Your task to perform on an android device: set the timer Image 0: 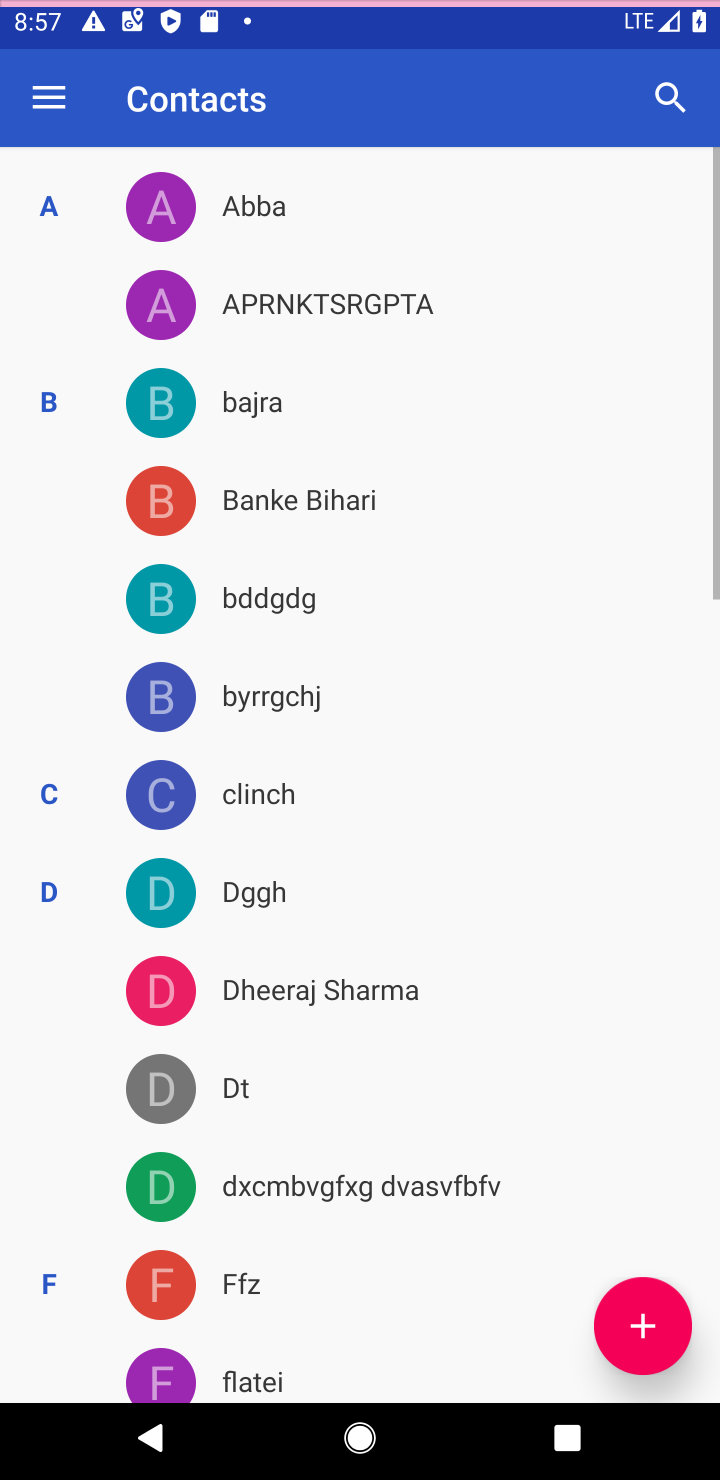
Step 0: press back button
Your task to perform on an android device: set the timer Image 1: 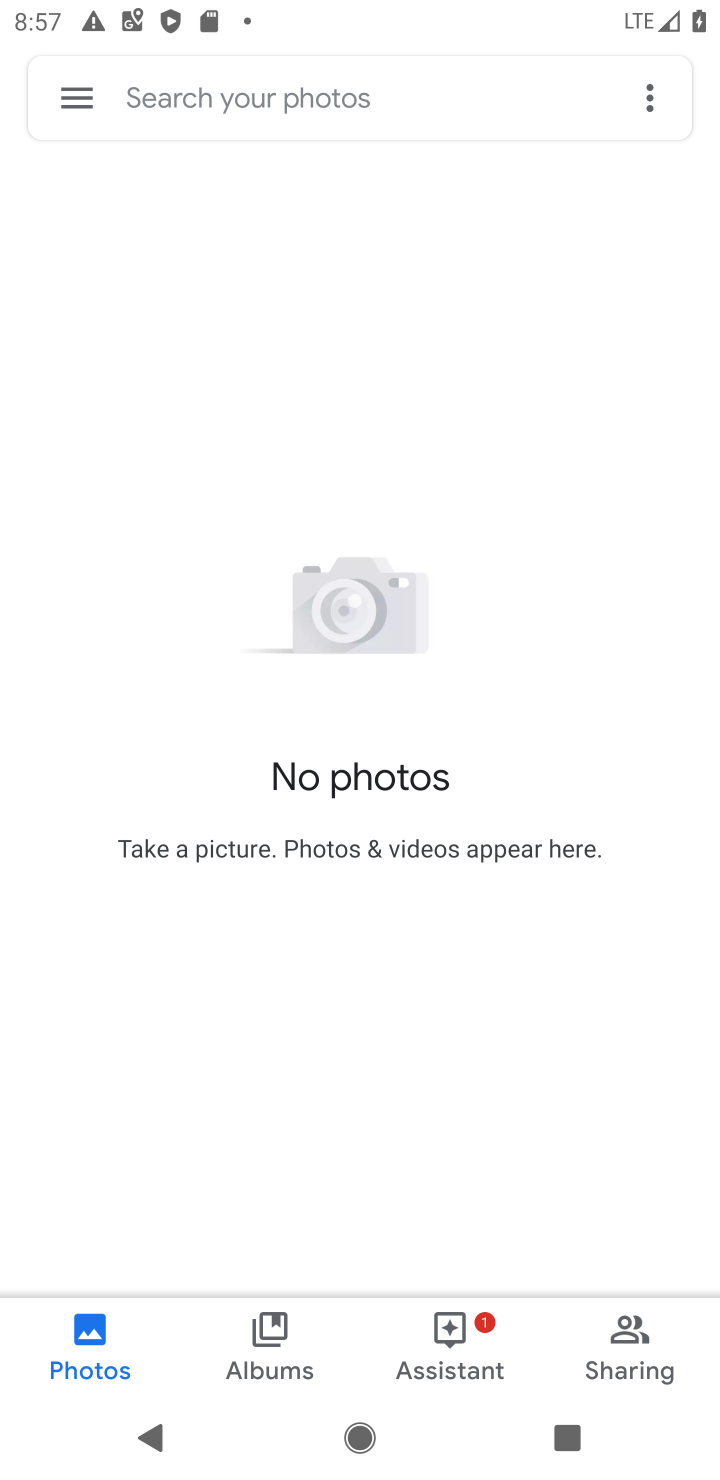
Step 1: press back button
Your task to perform on an android device: set the timer Image 2: 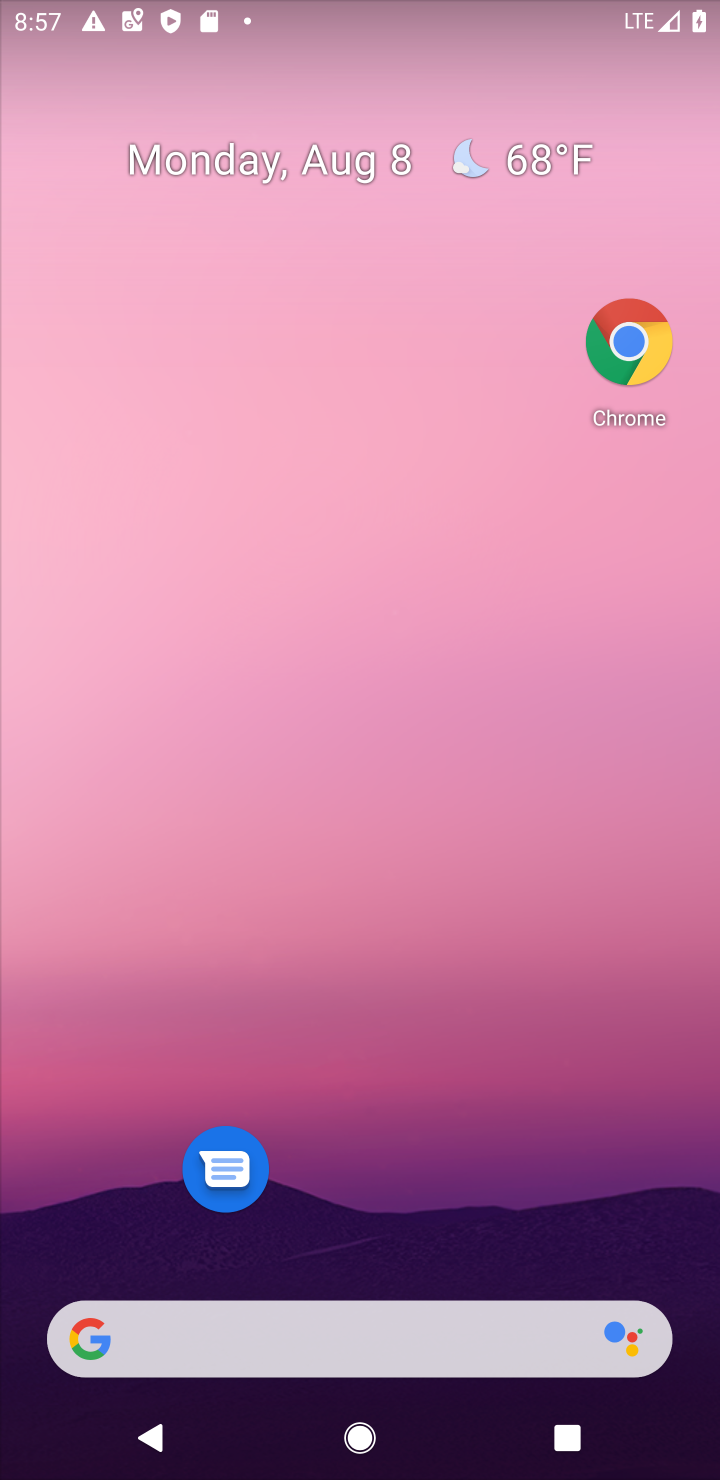
Step 2: drag from (350, 1162) to (508, 185)
Your task to perform on an android device: set the timer Image 3: 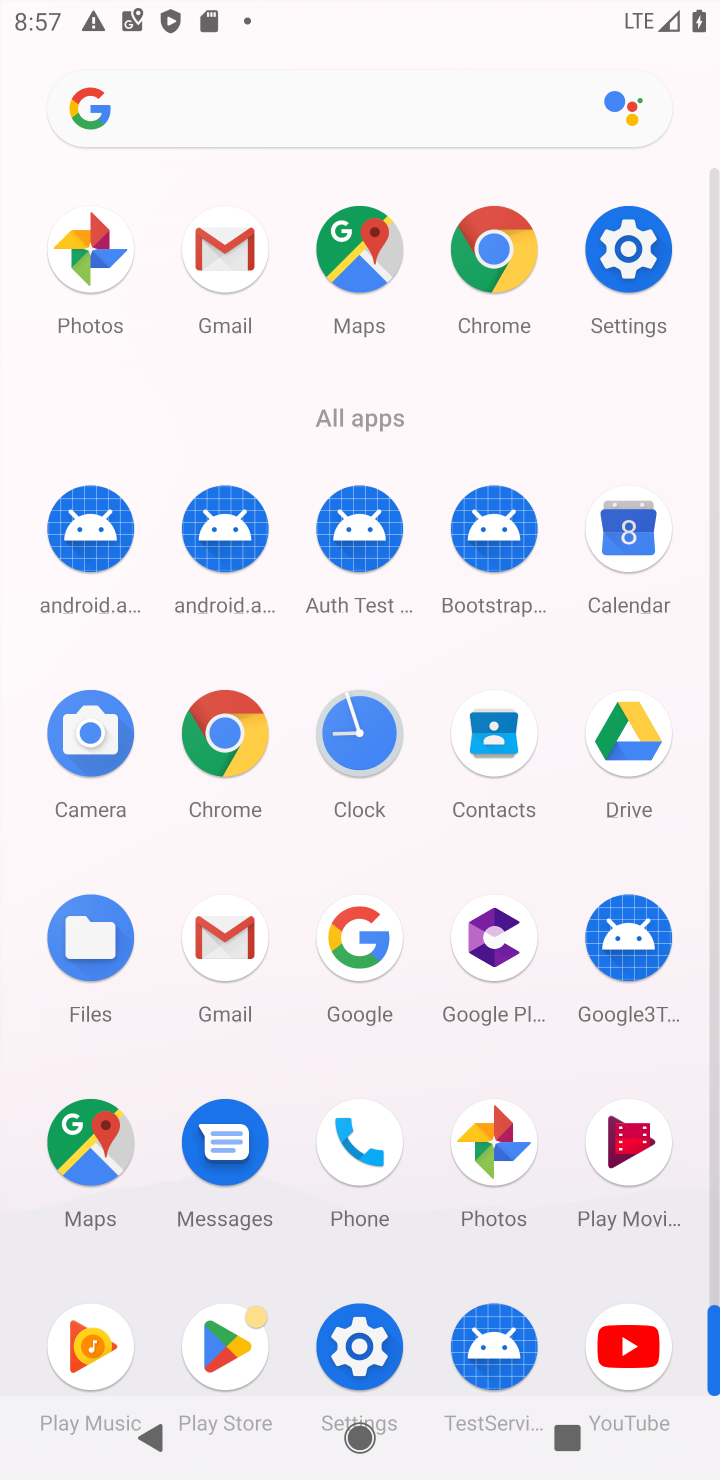
Step 3: click (353, 747)
Your task to perform on an android device: set the timer Image 4: 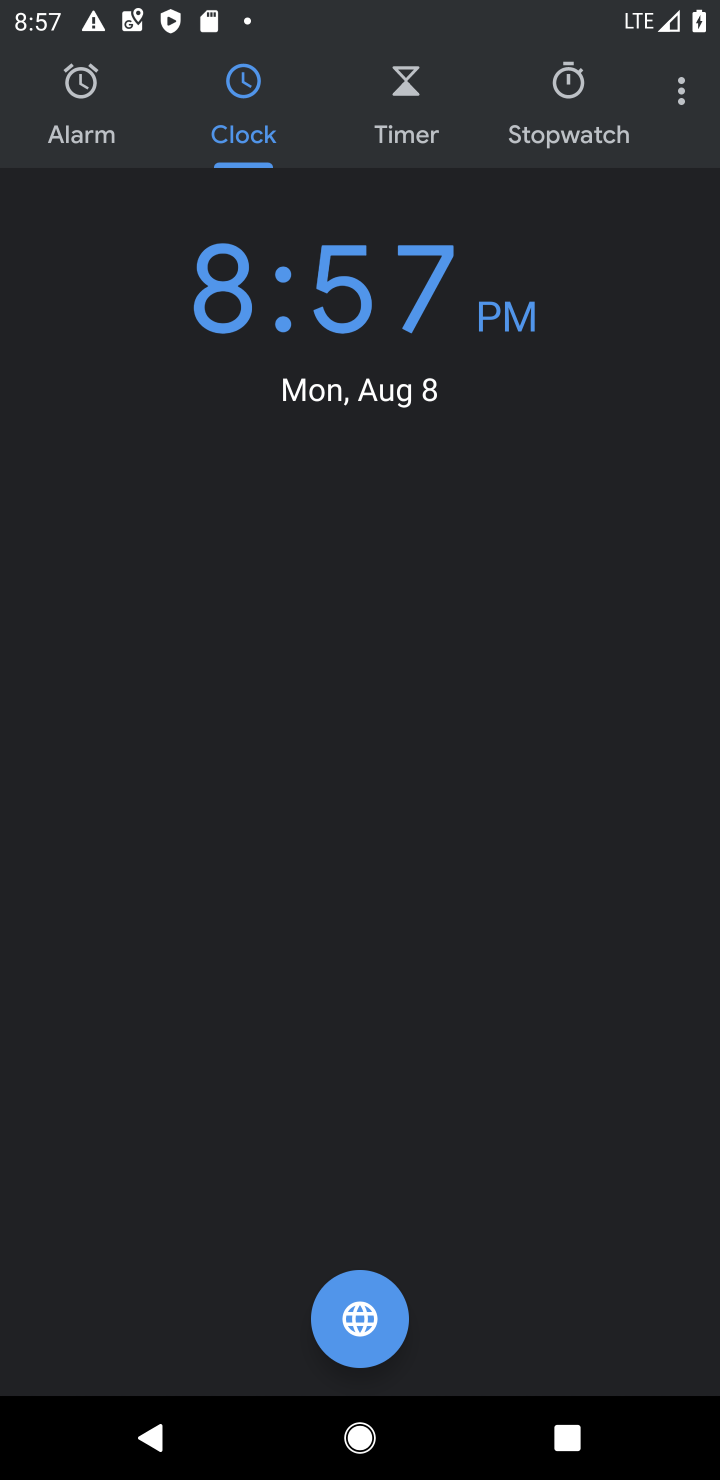
Step 4: click (399, 88)
Your task to perform on an android device: set the timer Image 5: 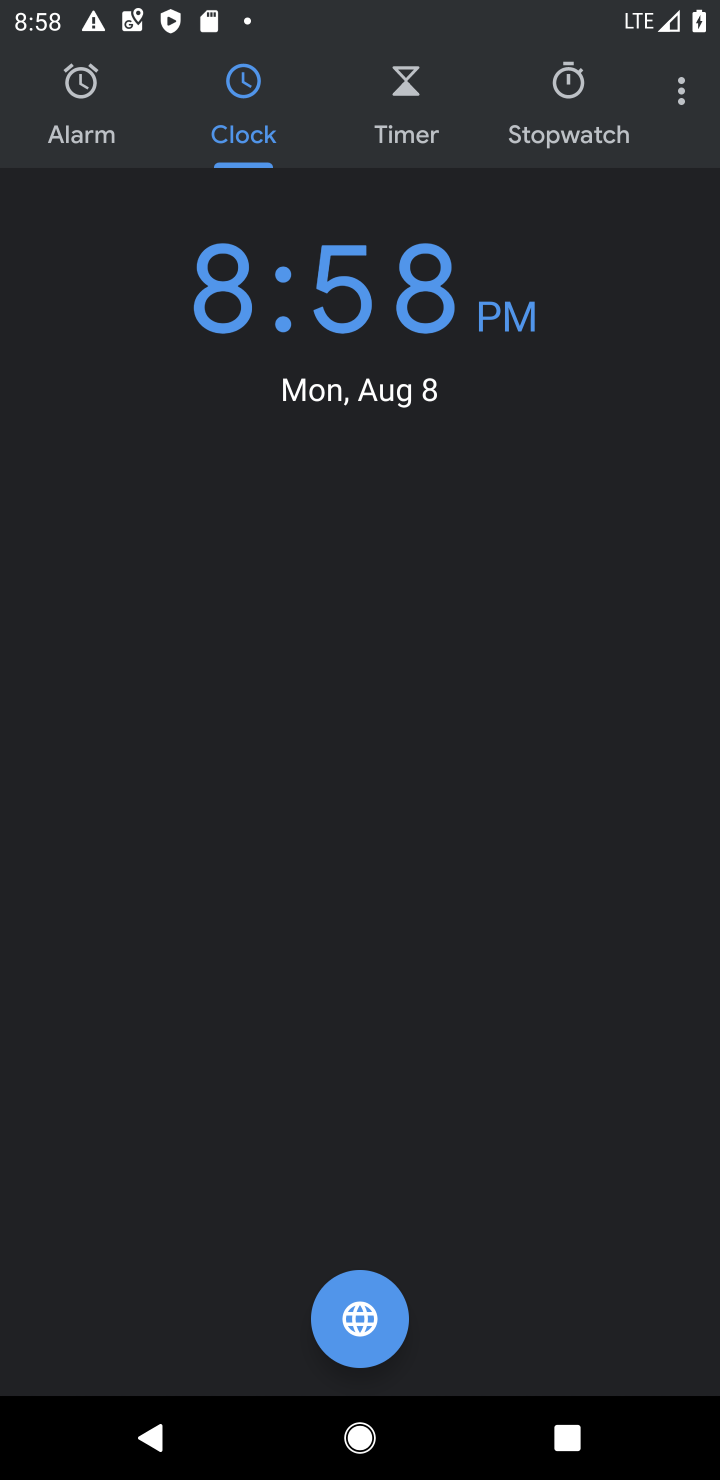
Step 5: click (402, 101)
Your task to perform on an android device: set the timer Image 6: 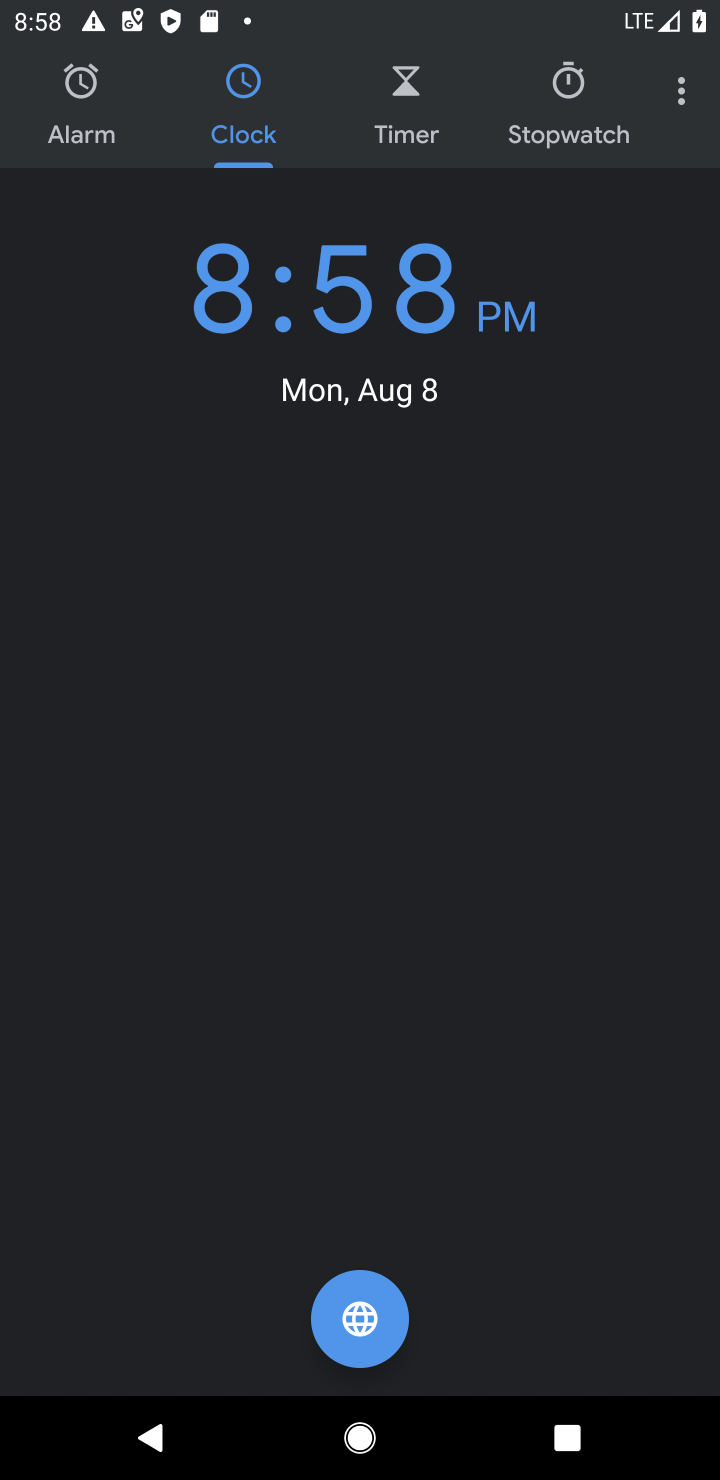
Step 6: click (399, 118)
Your task to perform on an android device: set the timer Image 7: 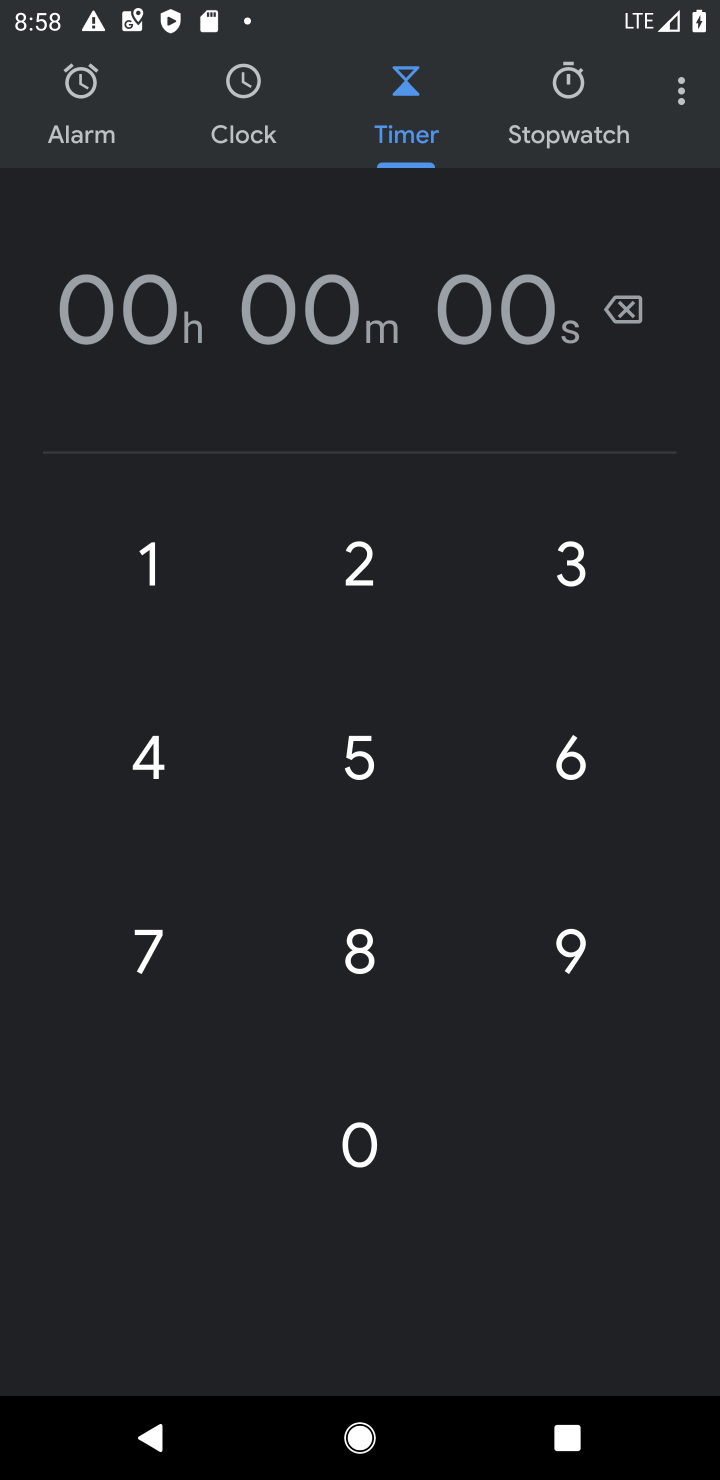
Step 7: click (353, 565)
Your task to perform on an android device: set the timer Image 8: 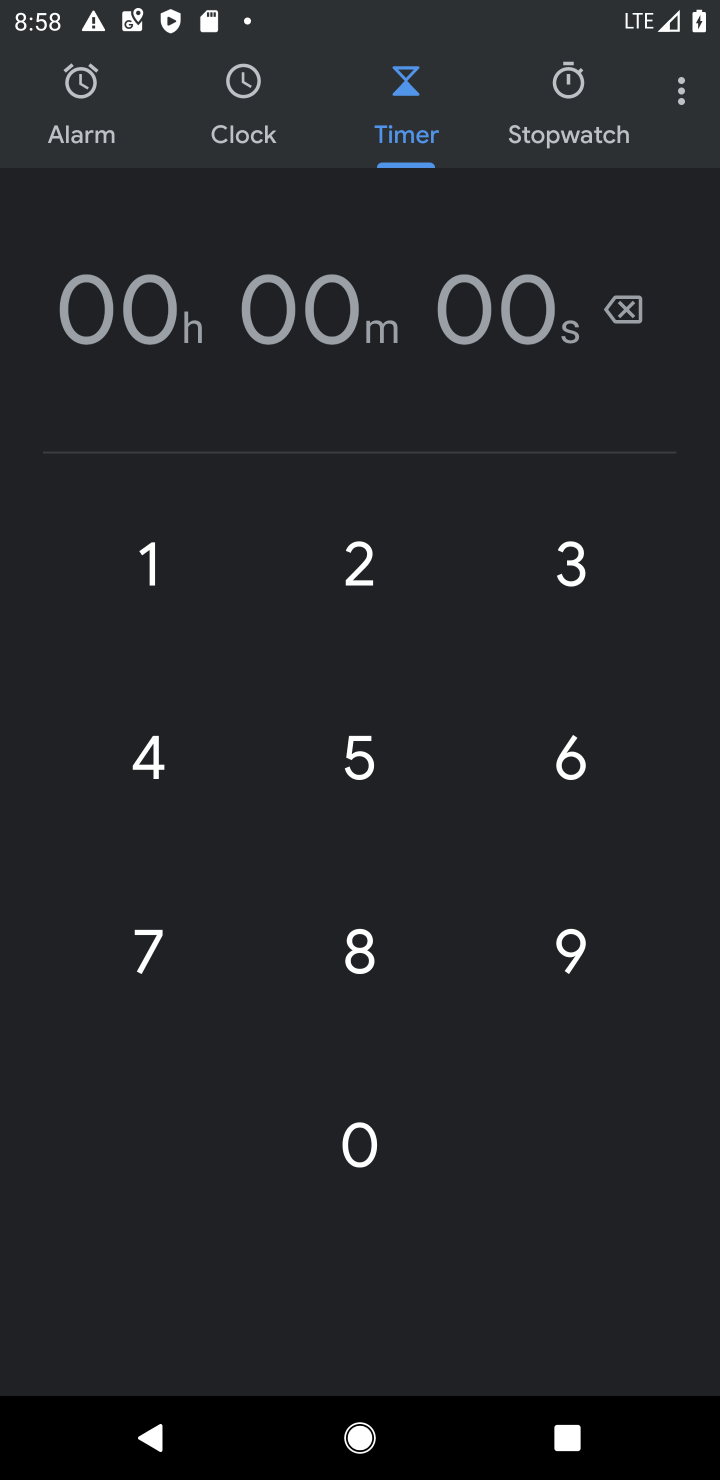
Step 8: click (588, 563)
Your task to perform on an android device: set the timer Image 9: 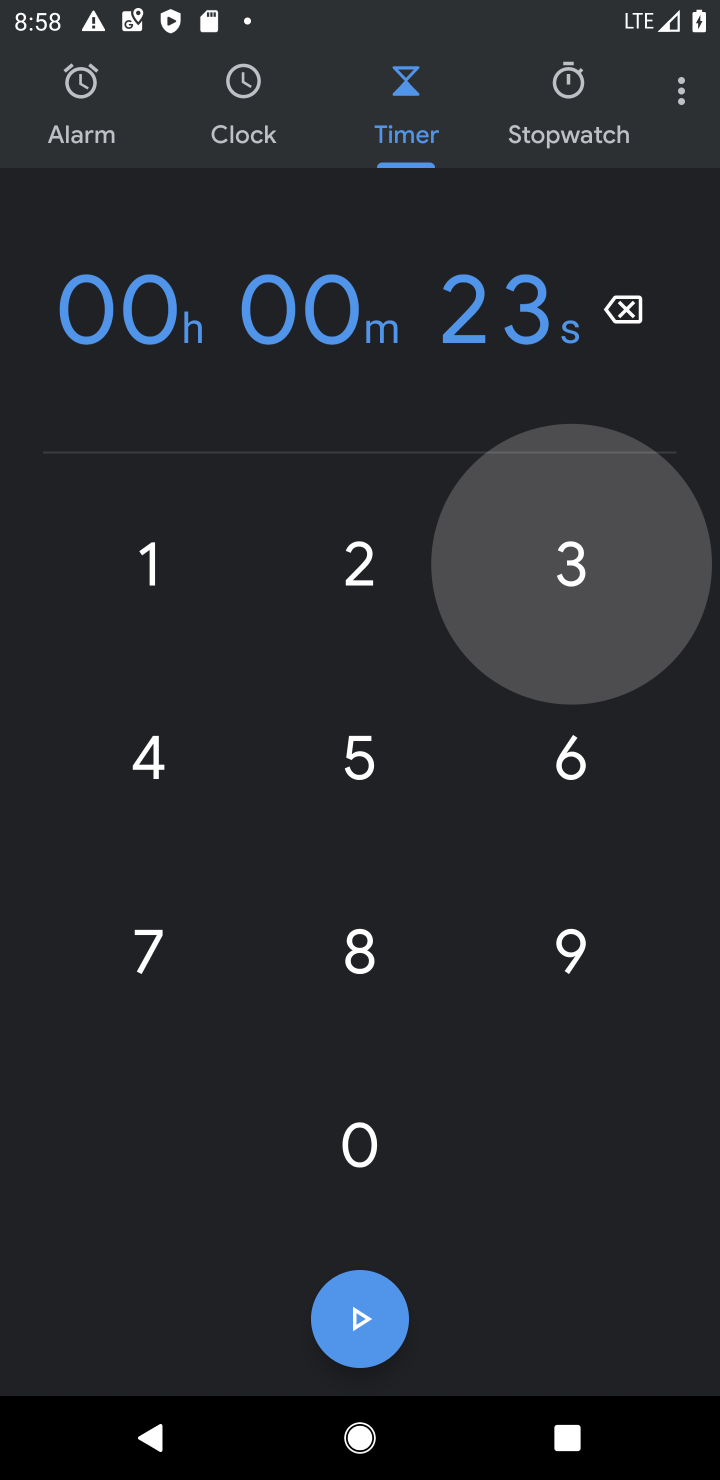
Step 9: click (360, 777)
Your task to perform on an android device: set the timer Image 10: 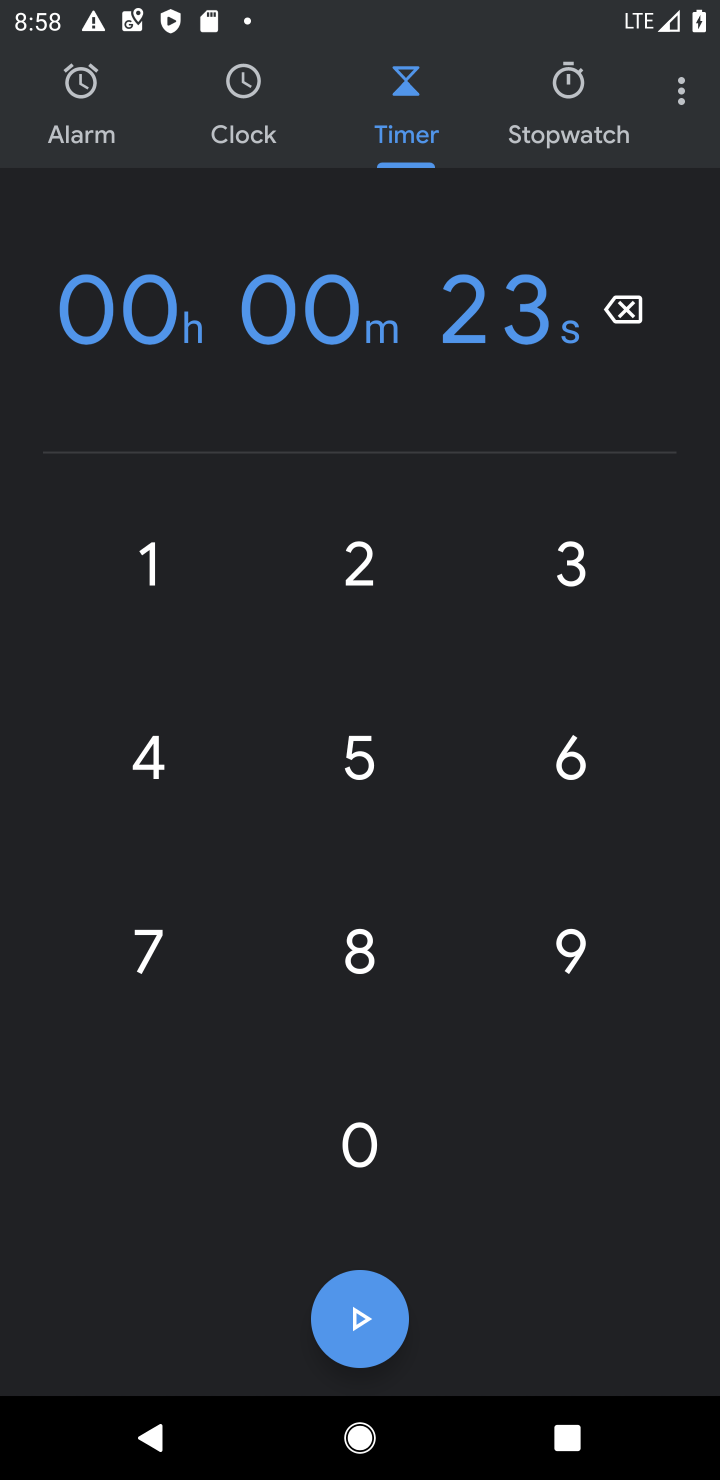
Step 10: click (570, 754)
Your task to perform on an android device: set the timer Image 11: 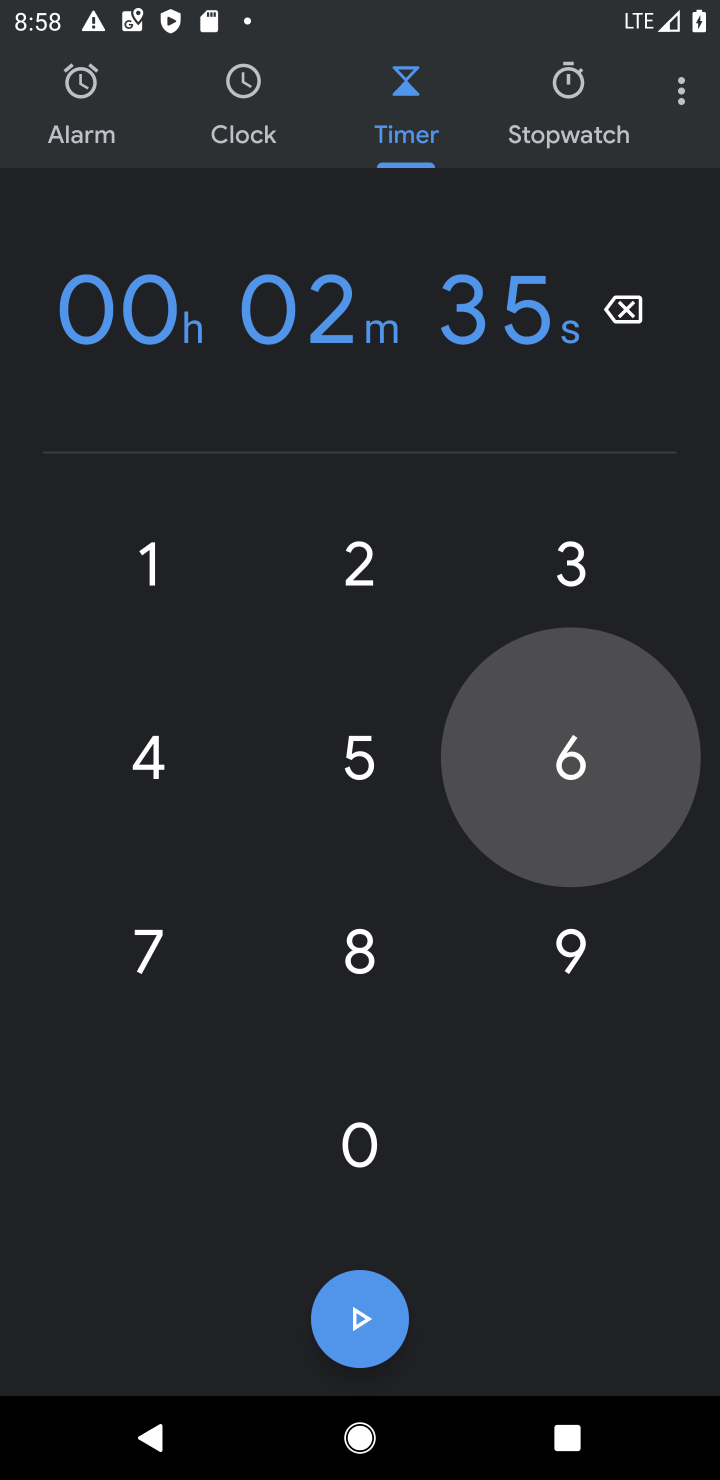
Step 11: click (181, 764)
Your task to perform on an android device: set the timer Image 12: 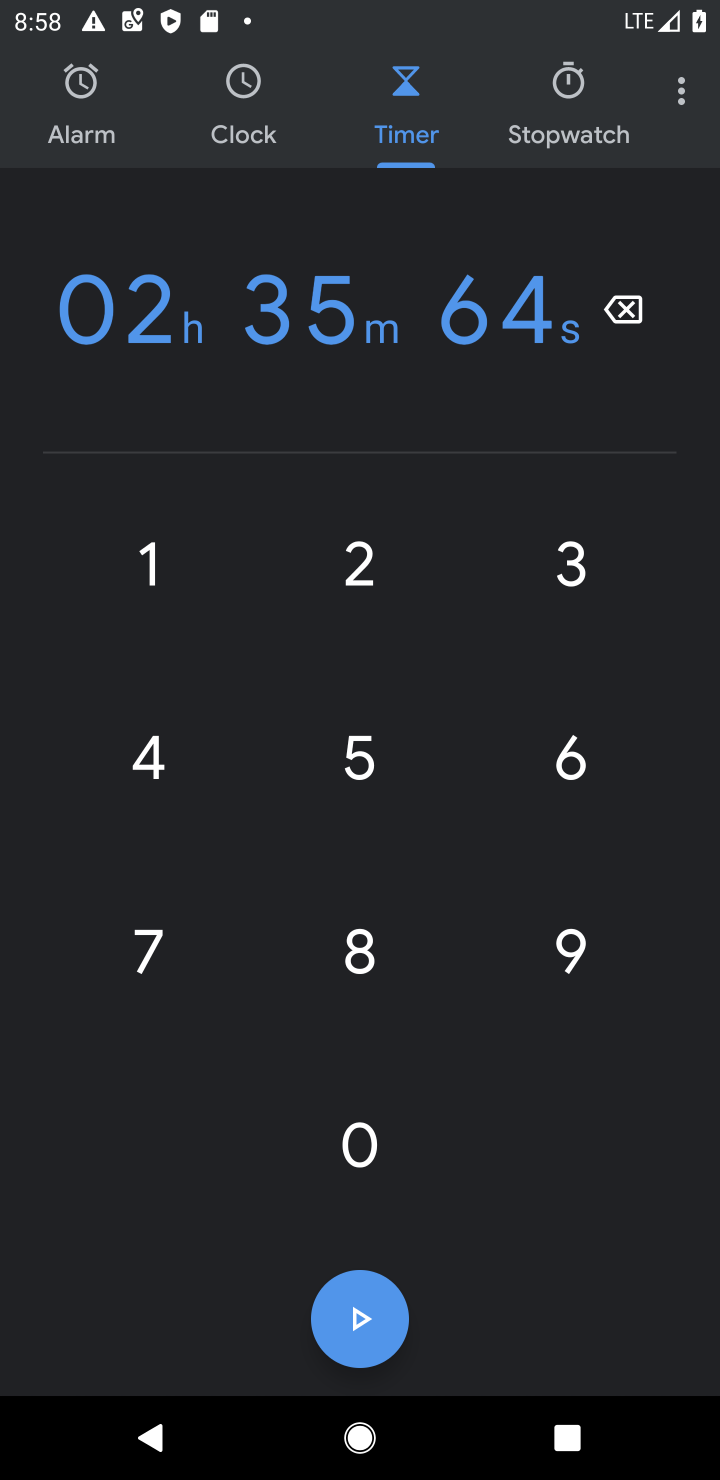
Step 12: click (358, 1343)
Your task to perform on an android device: set the timer Image 13: 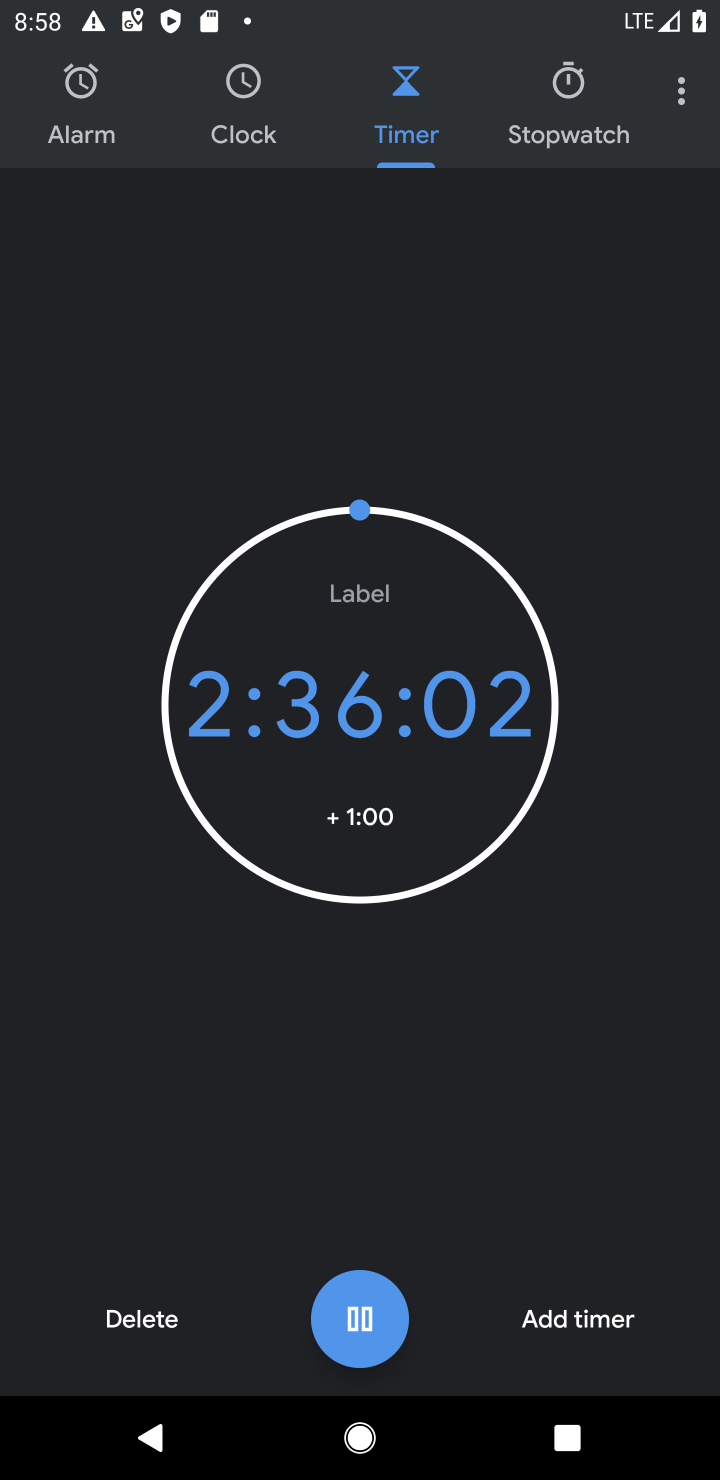
Step 13: task complete